Your task to perform on an android device: open app "VLC for Android" Image 0: 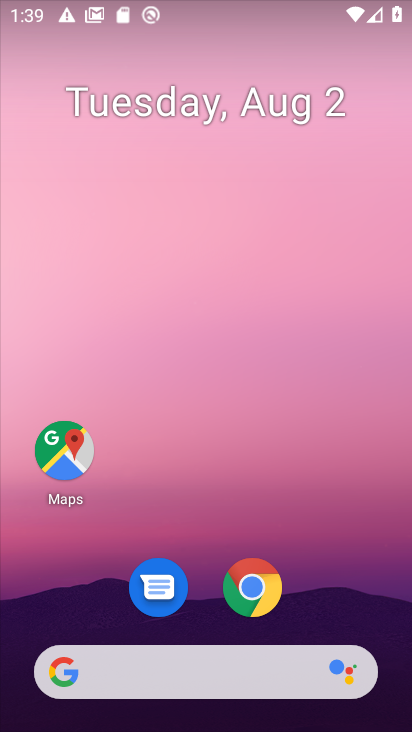
Step 0: drag from (232, 491) to (242, 116)
Your task to perform on an android device: open app "VLC for Android" Image 1: 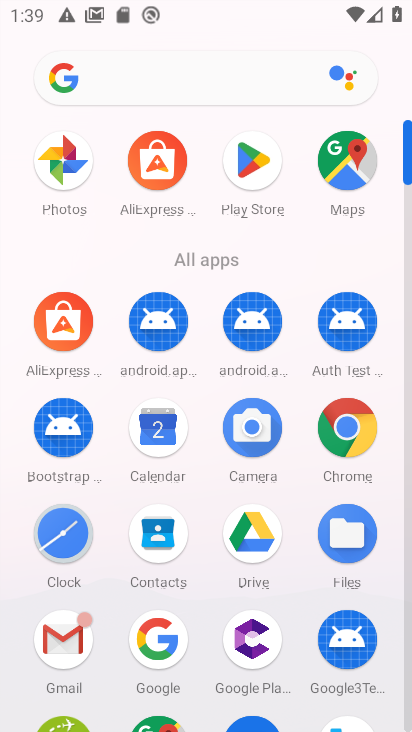
Step 1: click (258, 133)
Your task to perform on an android device: open app "VLC for Android" Image 2: 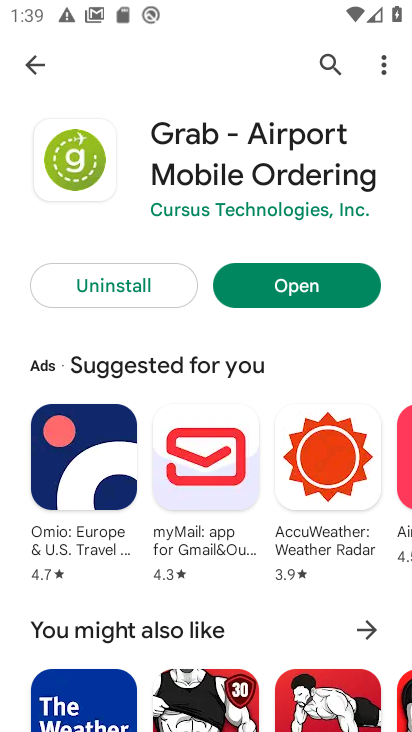
Step 2: click (331, 65)
Your task to perform on an android device: open app "VLC for Android" Image 3: 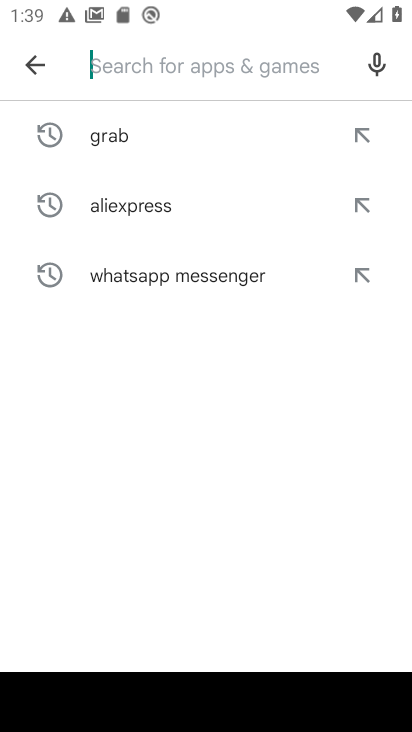
Step 3: type "VLC for Android"
Your task to perform on an android device: open app "VLC for Android" Image 4: 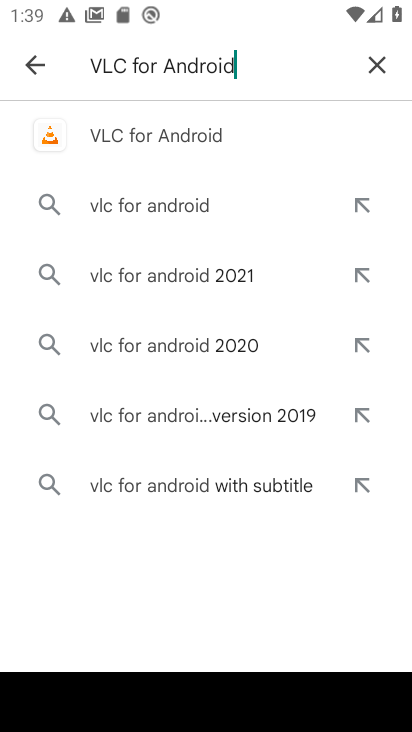
Step 4: click (195, 135)
Your task to perform on an android device: open app "VLC for Android" Image 5: 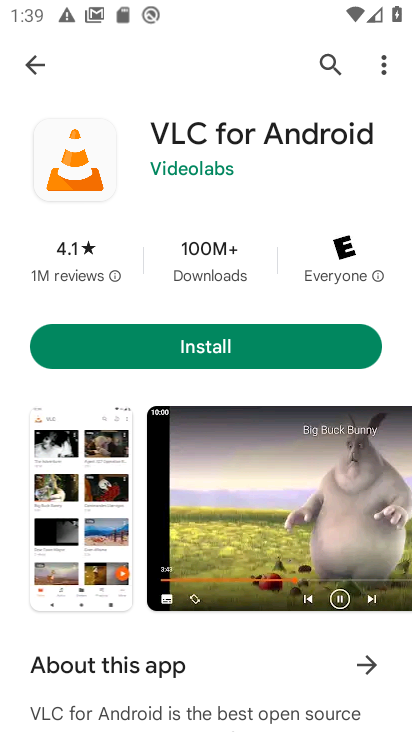
Step 5: task complete